Your task to perform on an android device: check google app version Image 0: 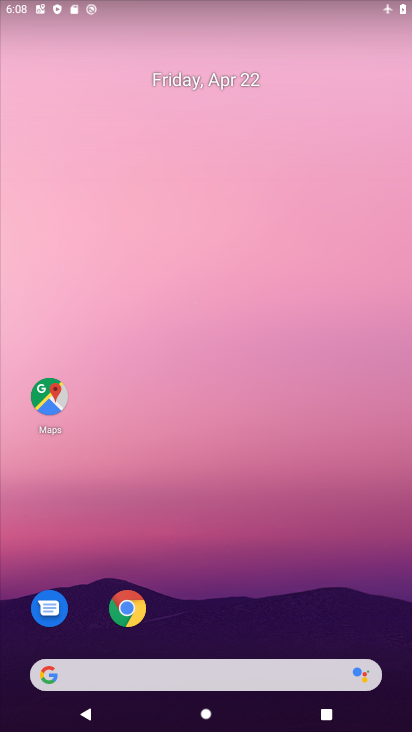
Step 0: drag from (234, 621) to (232, 117)
Your task to perform on an android device: check google app version Image 1: 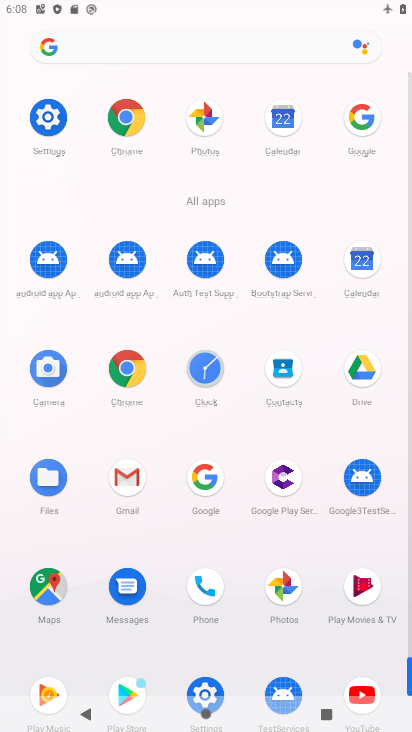
Step 1: click (203, 480)
Your task to perform on an android device: check google app version Image 2: 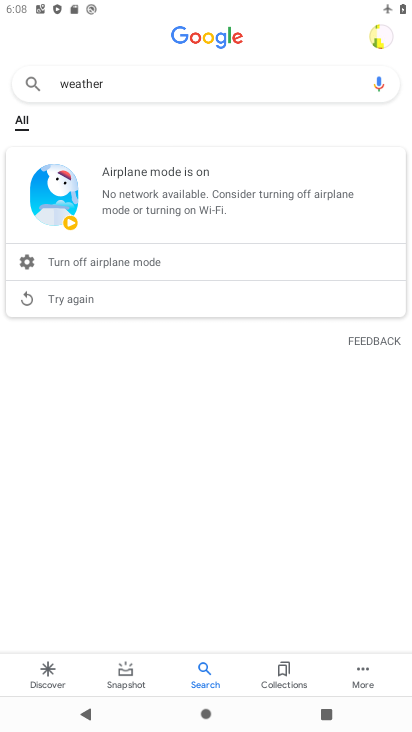
Step 2: click (373, 679)
Your task to perform on an android device: check google app version Image 3: 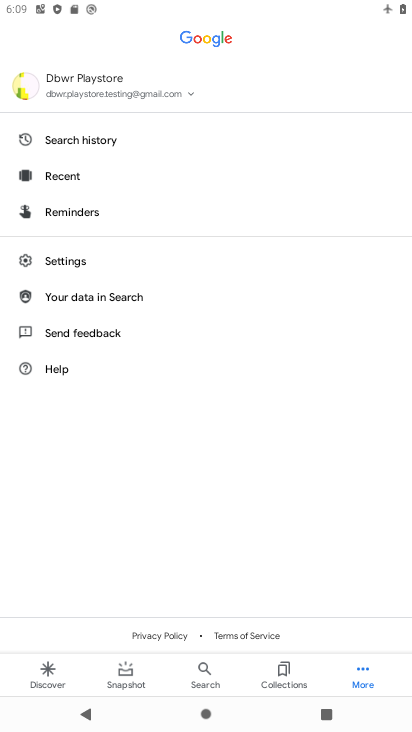
Step 3: click (48, 258)
Your task to perform on an android device: check google app version Image 4: 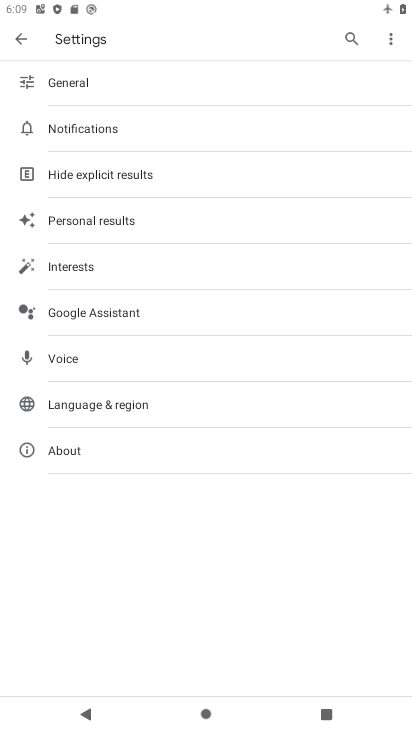
Step 4: click (74, 455)
Your task to perform on an android device: check google app version Image 5: 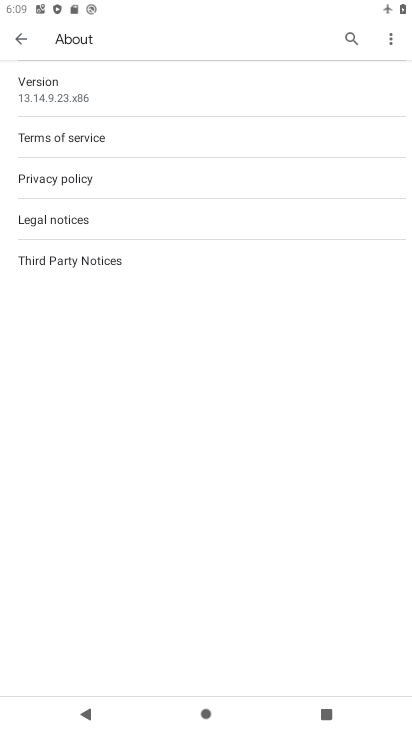
Step 5: task complete